Your task to perform on an android device: What is the recent news? Image 0: 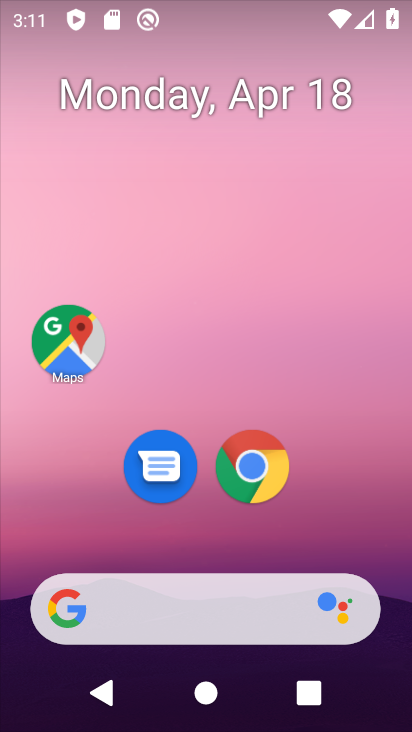
Step 0: click (254, 467)
Your task to perform on an android device: What is the recent news? Image 1: 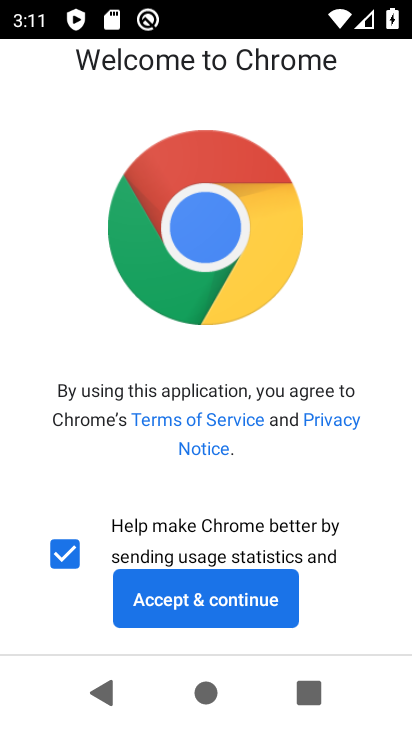
Step 1: click (219, 596)
Your task to perform on an android device: What is the recent news? Image 2: 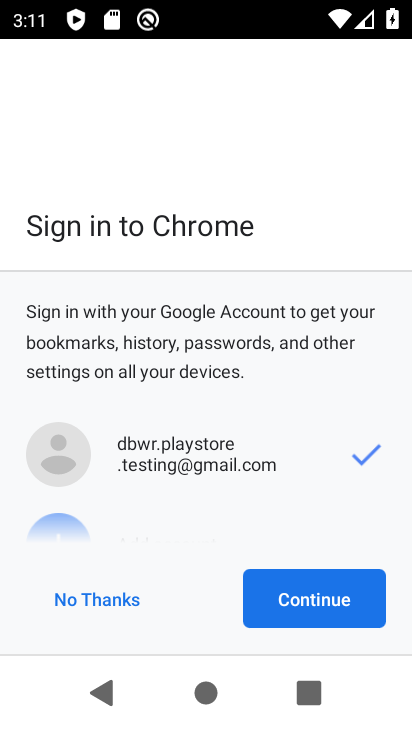
Step 2: click (219, 596)
Your task to perform on an android device: What is the recent news? Image 3: 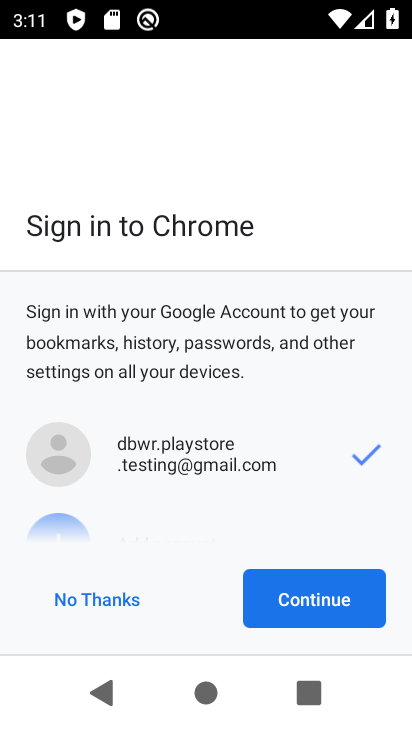
Step 3: click (271, 596)
Your task to perform on an android device: What is the recent news? Image 4: 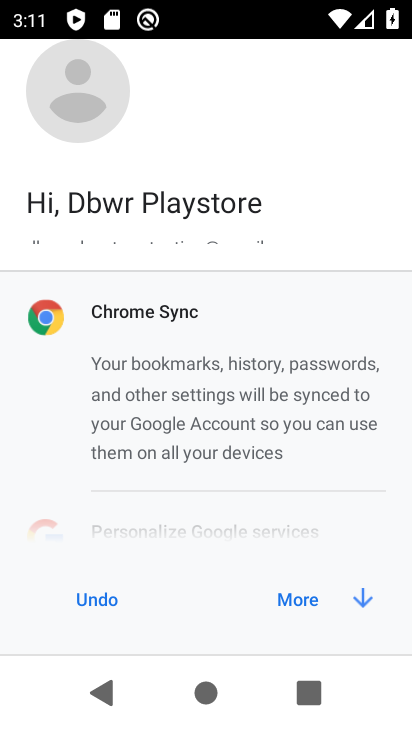
Step 4: click (271, 596)
Your task to perform on an android device: What is the recent news? Image 5: 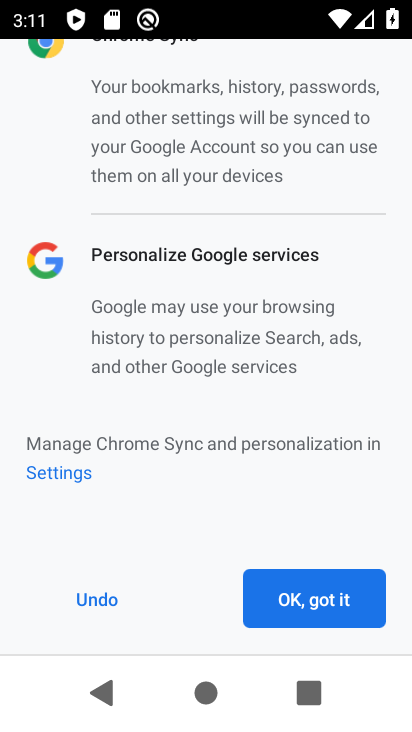
Step 5: click (353, 594)
Your task to perform on an android device: What is the recent news? Image 6: 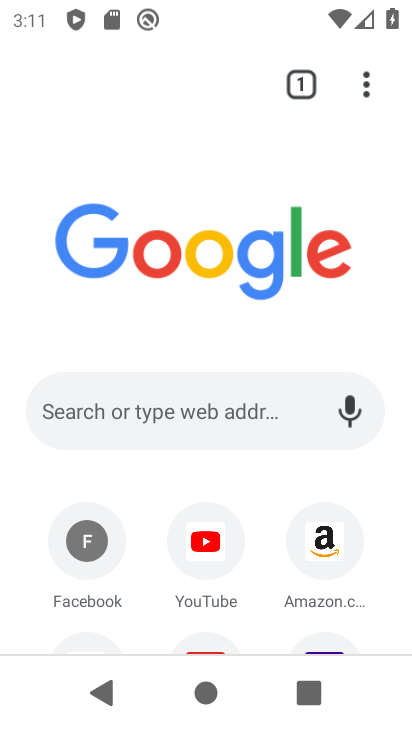
Step 6: task complete